Your task to perform on an android device: Search for Italian restaurants on Maps Image 0: 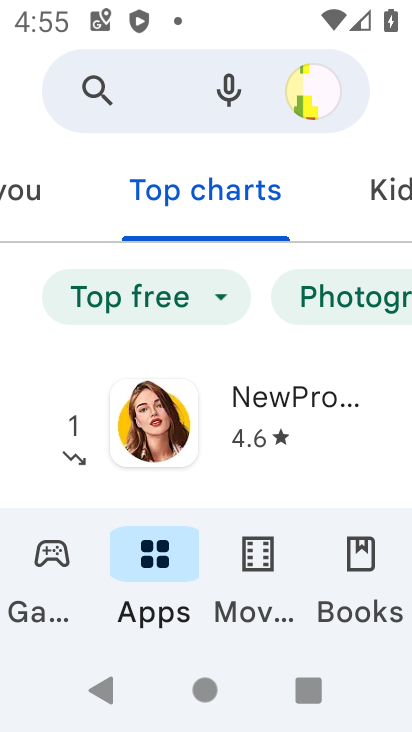
Step 0: press home button
Your task to perform on an android device: Search for Italian restaurants on Maps Image 1: 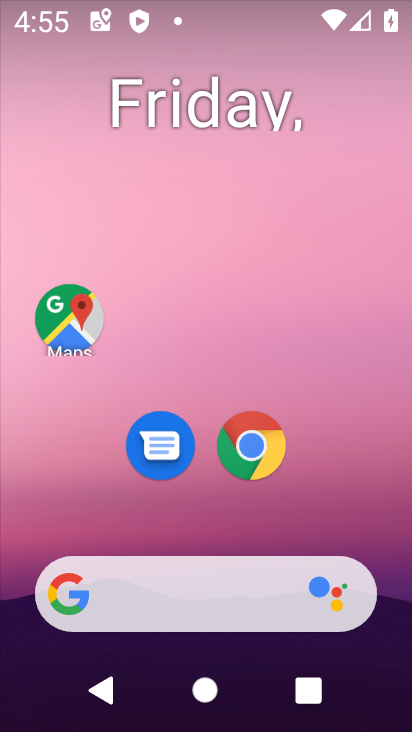
Step 1: click (51, 321)
Your task to perform on an android device: Search for Italian restaurants on Maps Image 2: 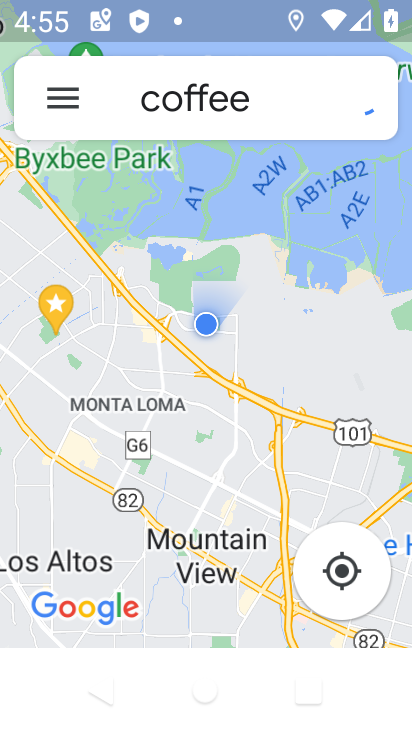
Step 2: click (247, 97)
Your task to perform on an android device: Search for Italian restaurants on Maps Image 3: 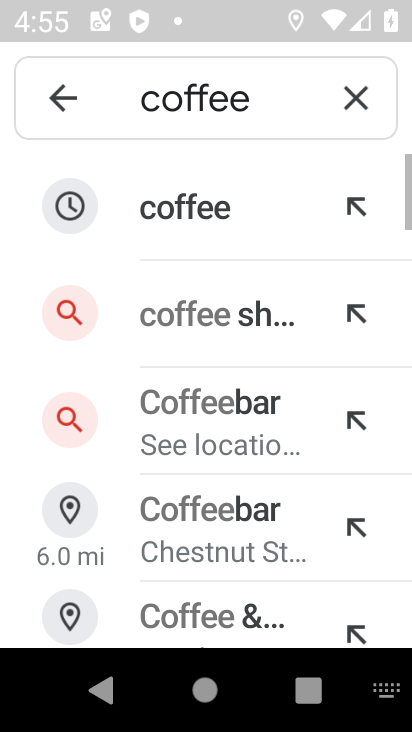
Step 3: click (360, 105)
Your task to perform on an android device: Search for Italian restaurants on Maps Image 4: 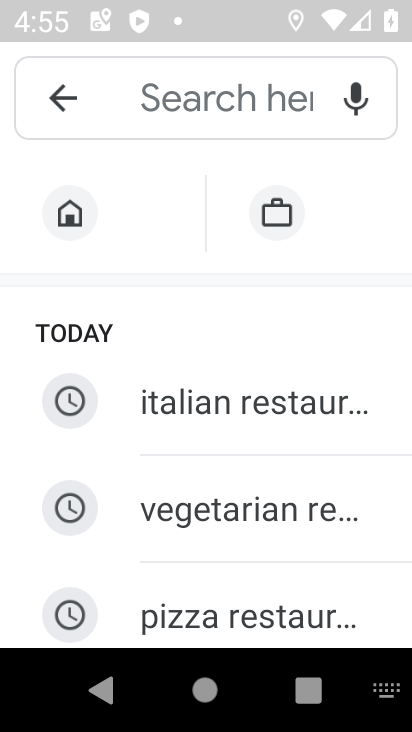
Step 4: click (299, 377)
Your task to perform on an android device: Search for Italian restaurants on Maps Image 5: 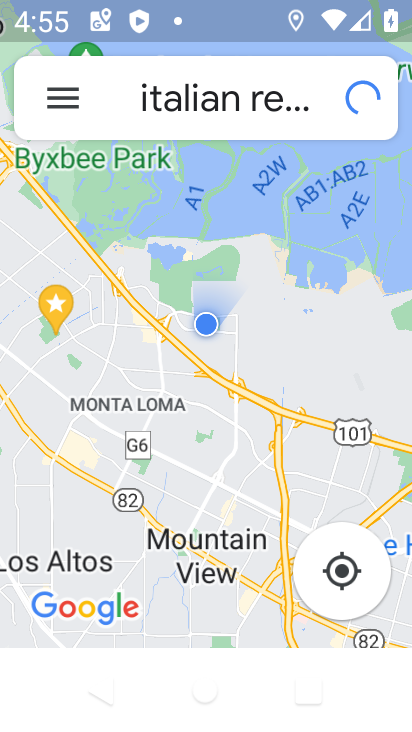
Step 5: task complete